Your task to perform on an android device: Open Chrome and go to settings Image 0: 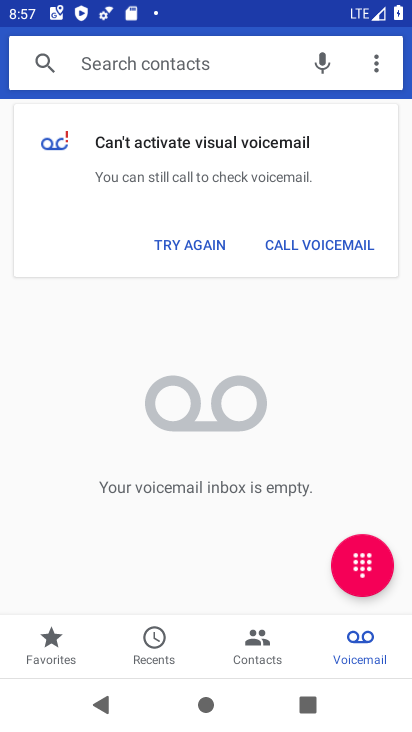
Step 0: press home button
Your task to perform on an android device: Open Chrome and go to settings Image 1: 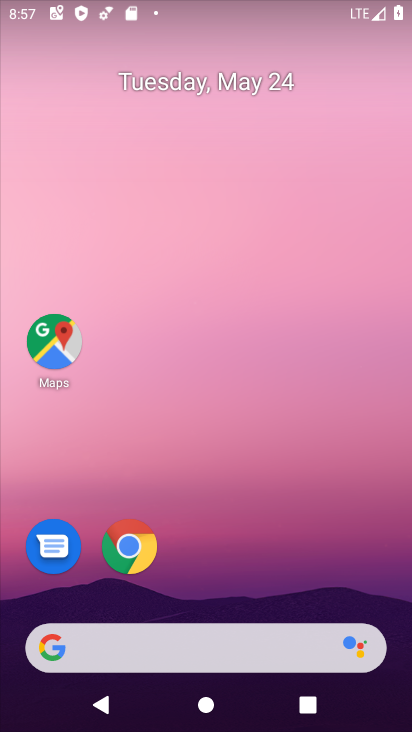
Step 1: click (135, 555)
Your task to perform on an android device: Open Chrome and go to settings Image 2: 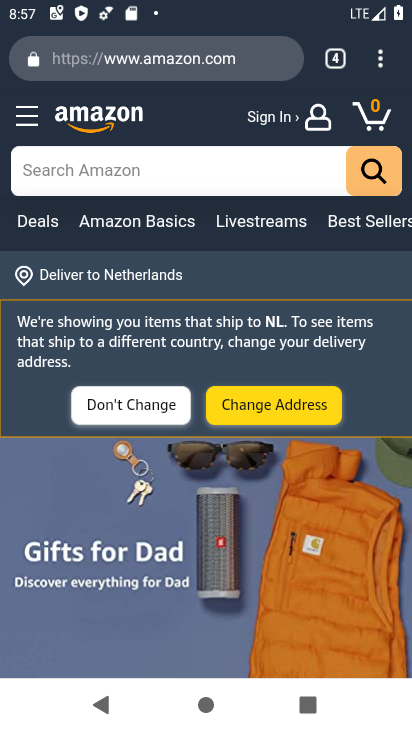
Step 2: click (376, 61)
Your task to perform on an android device: Open Chrome and go to settings Image 3: 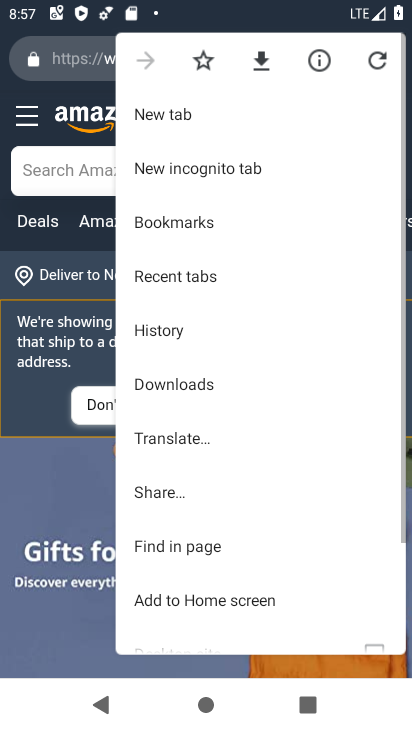
Step 3: drag from (240, 497) to (292, 179)
Your task to perform on an android device: Open Chrome and go to settings Image 4: 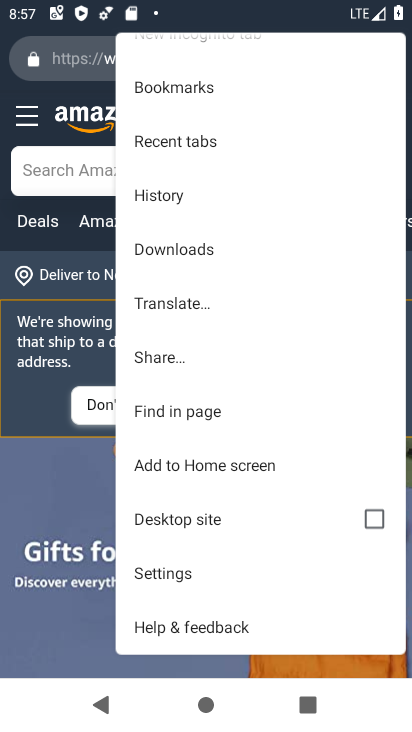
Step 4: click (194, 575)
Your task to perform on an android device: Open Chrome and go to settings Image 5: 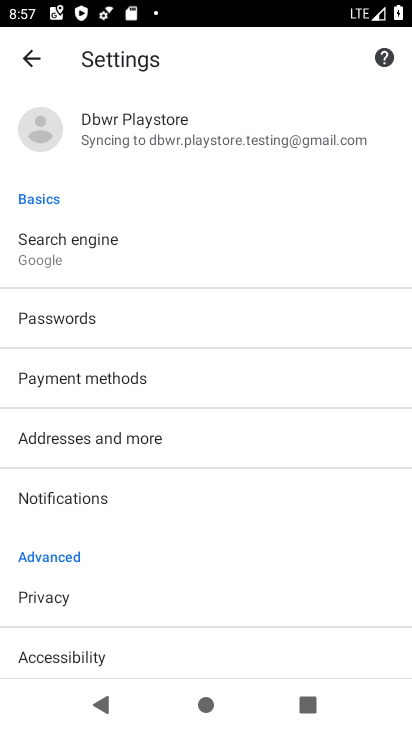
Step 5: task complete